Your task to perform on an android device: snooze an email in the gmail app Image 0: 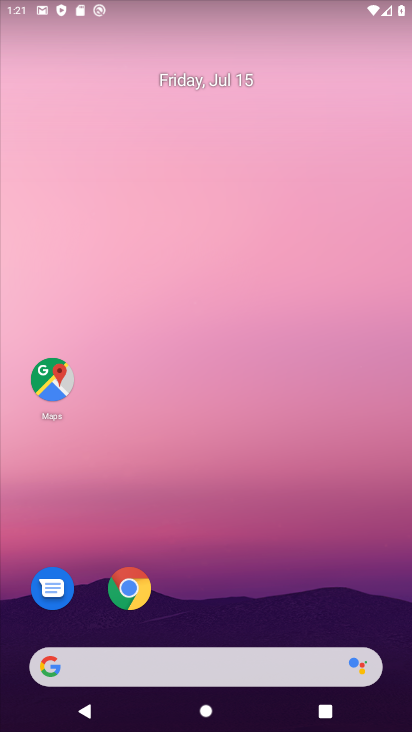
Step 0: press home button
Your task to perform on an android device: snooze an email in the gmail app Image 1: 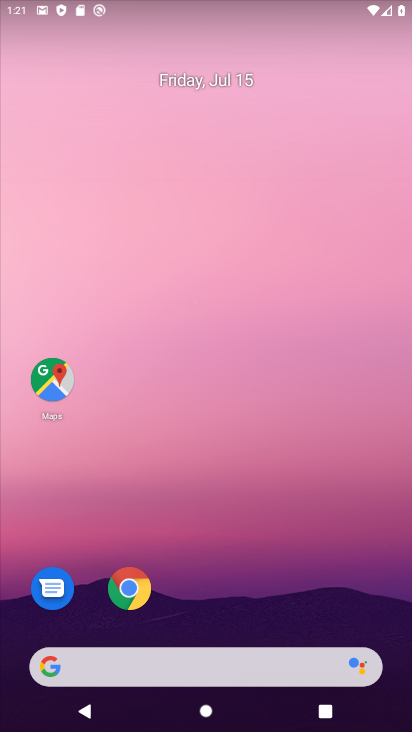
Step 1: drag from (194, 662) to (168, 207)
Your task to perform on an android device: snooze an email in the gmail app Image 2: 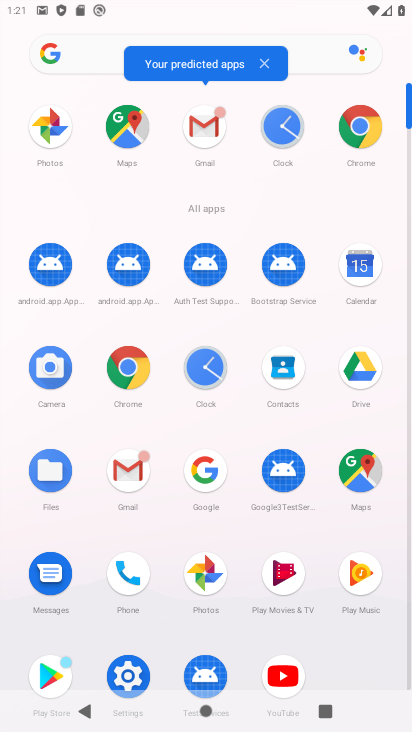
Step 2: click (203, 119)
Your task to perform on an android device: snooze an email in the gmail app Image 3: 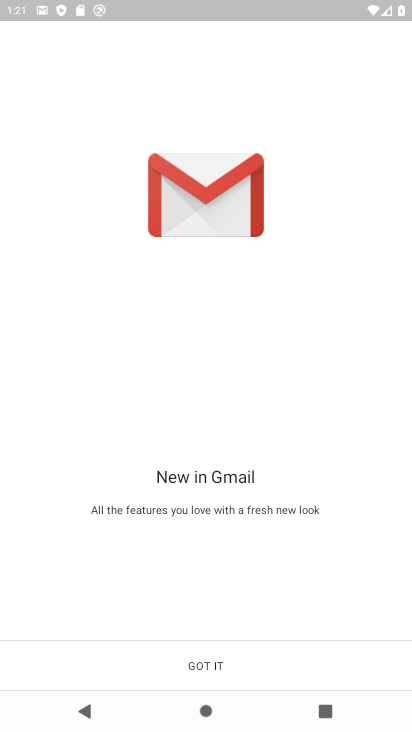
Step 3: click (212, 662)
Your task to perform on an android device: snooze an email in the gmail app Image 4: 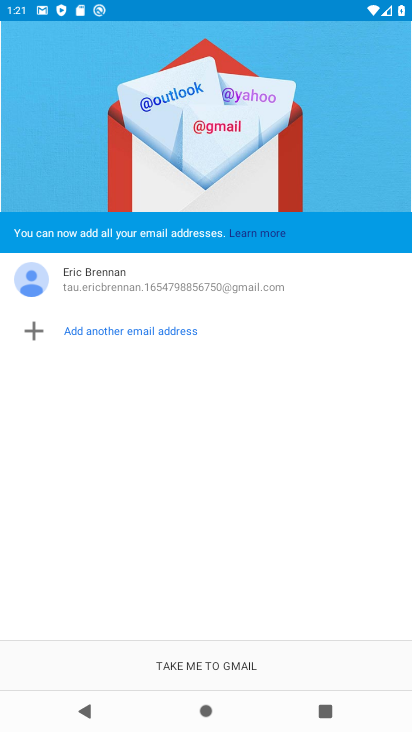
Step 4: click (213, 659)
Your task to perform on an android device: snooze an email in the gmail app Image 5: 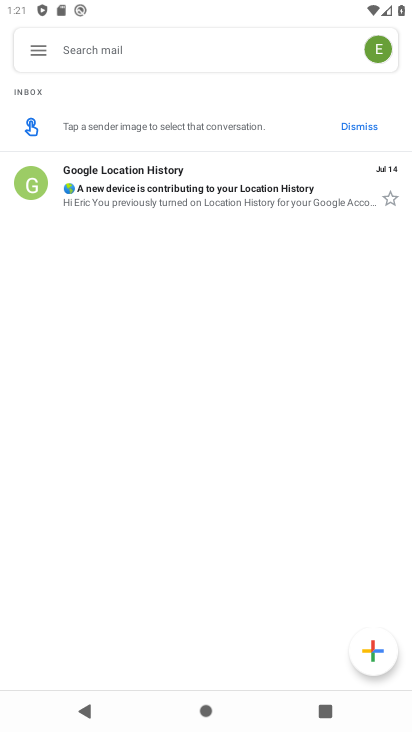
Step 5: click (200, 198)
Your task to perform on an android device: snooze an email in the gmail app Image 6: 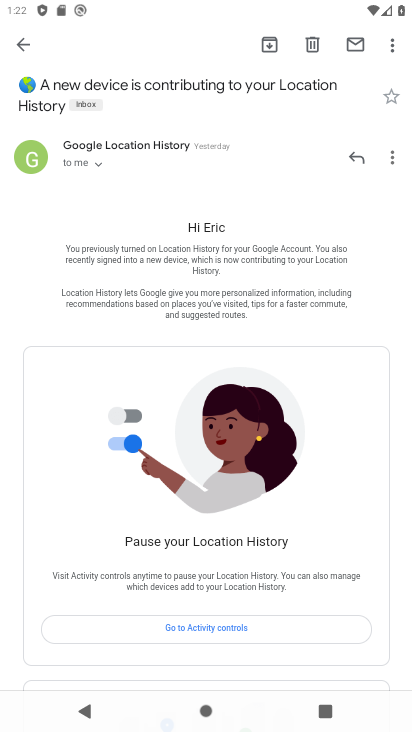
Step 6: click (394, 46)
Your task to perform on an android device: snooze an email in the gmail app Image 7: 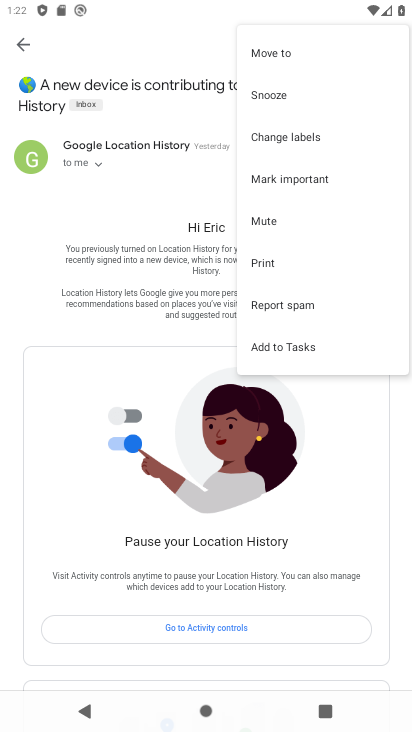
Step 7: click (279, 93)
Your task to perform on an android device: snooze an email in the gmail app Image 8: 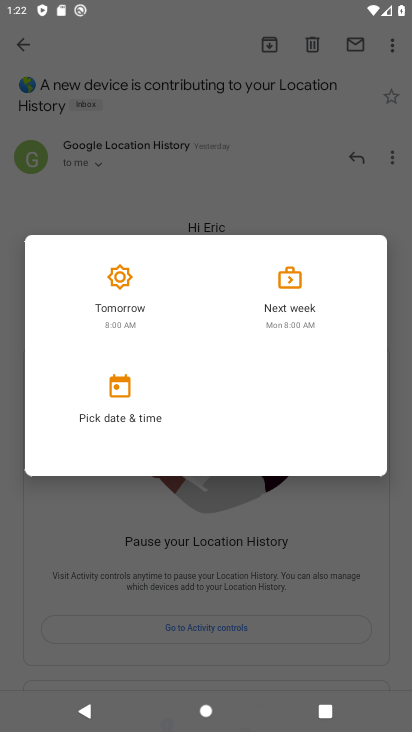
Step 8: click (121, 296)
Your task to perform on an android device: snooze an email in the gmail app Image 9: 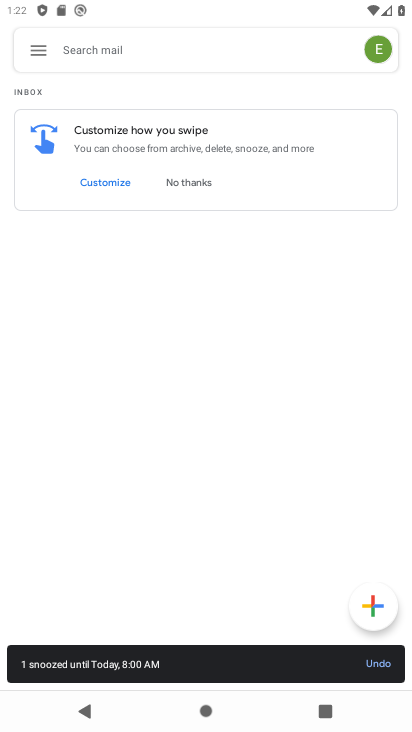
Step 9: task complete